Your task to perform on an android device: open app "Fetch Rewards" (install if not already installed) Image 0: 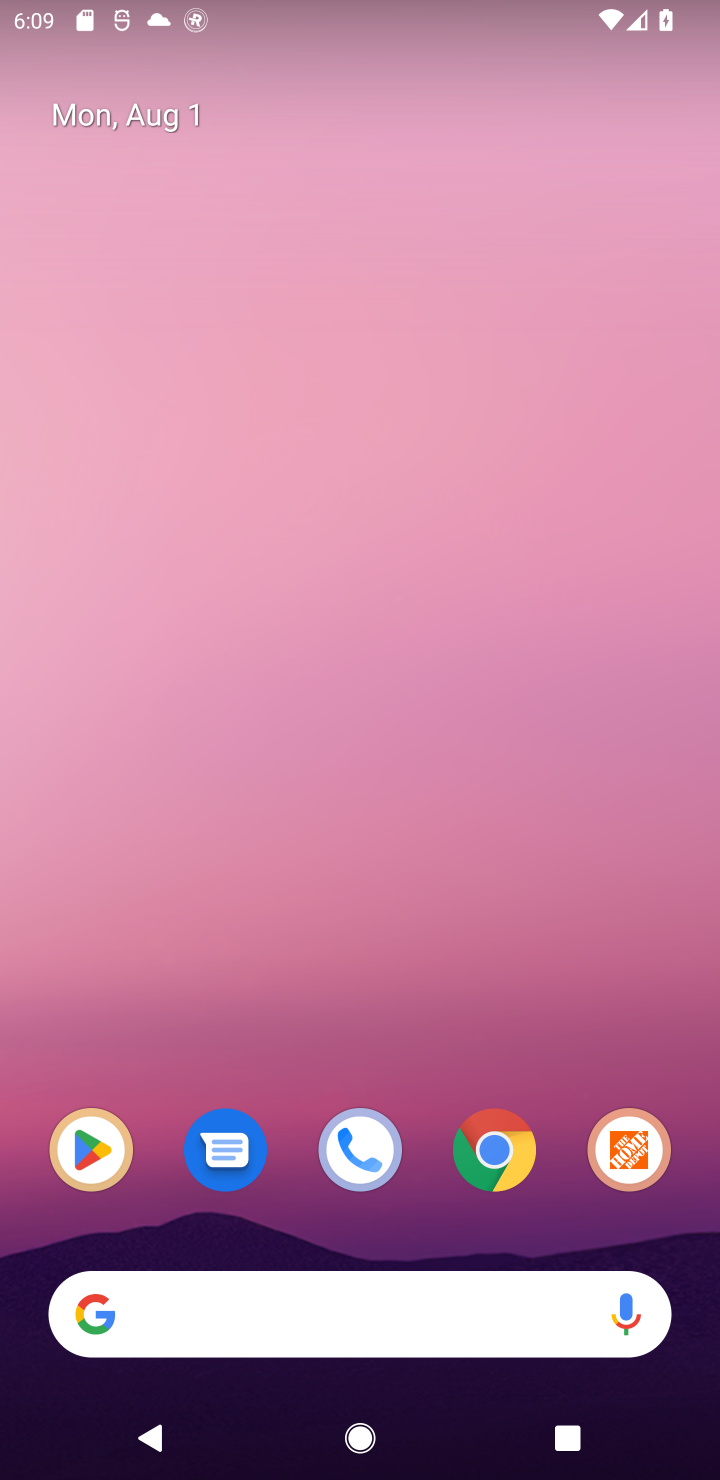
Step 0: click (81, 1152)
Your task to perform on an android device: open app "Fetch Rewards" (install if not already installed) Image 1: 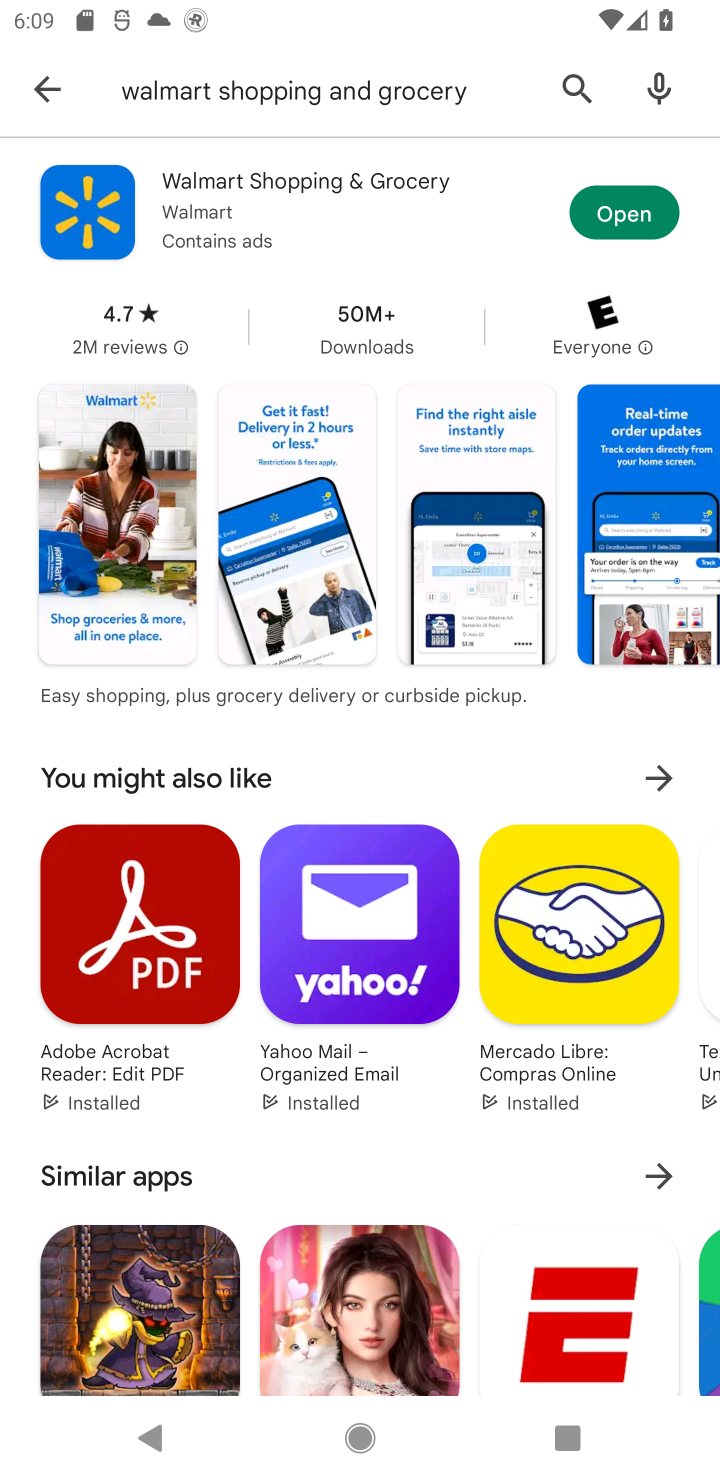
Step 1: click (579, 94)
Your task to perform on an android device: open app "Fetch Rewards" (install if not already installed) Image 2: 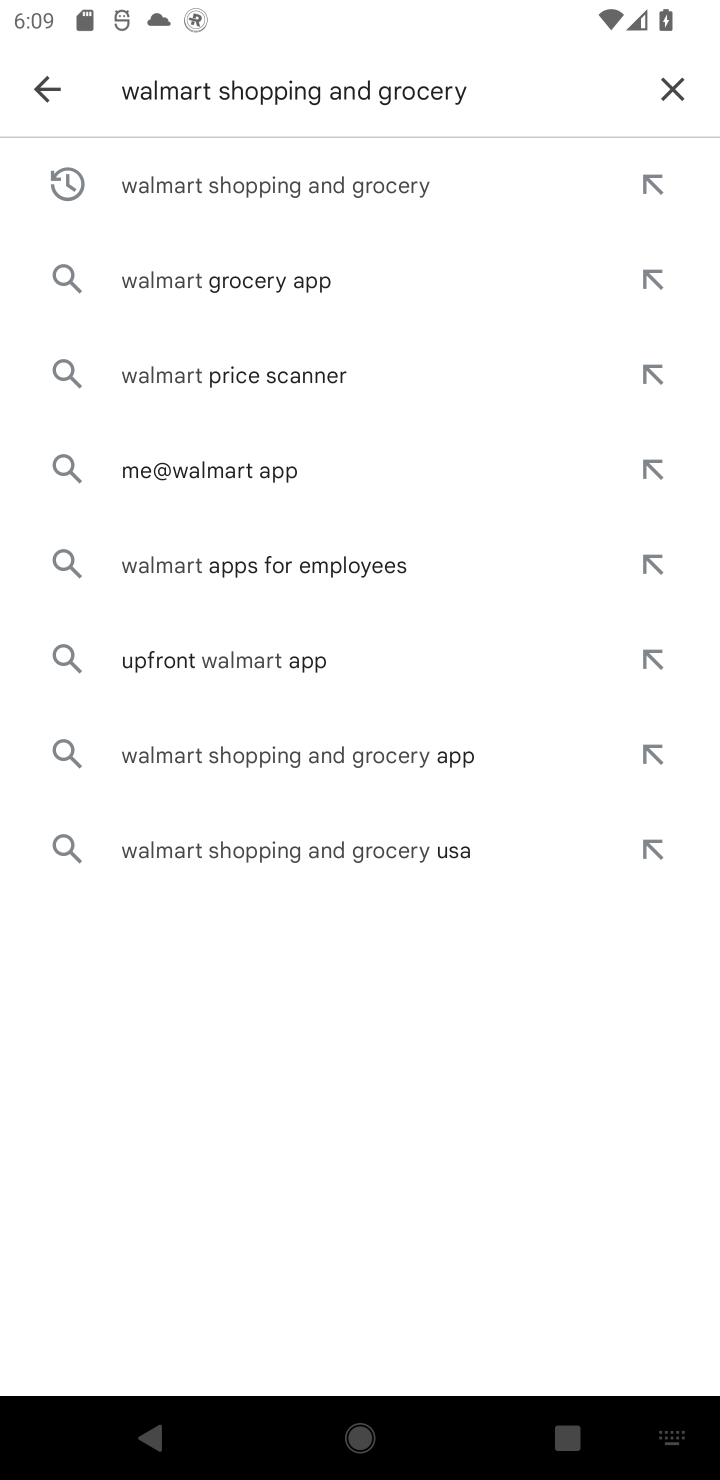
Step 2: click (674, 94)
Your task to perform on an android device: open app "Fetch Rewards" (install if not already installed) Image 3: 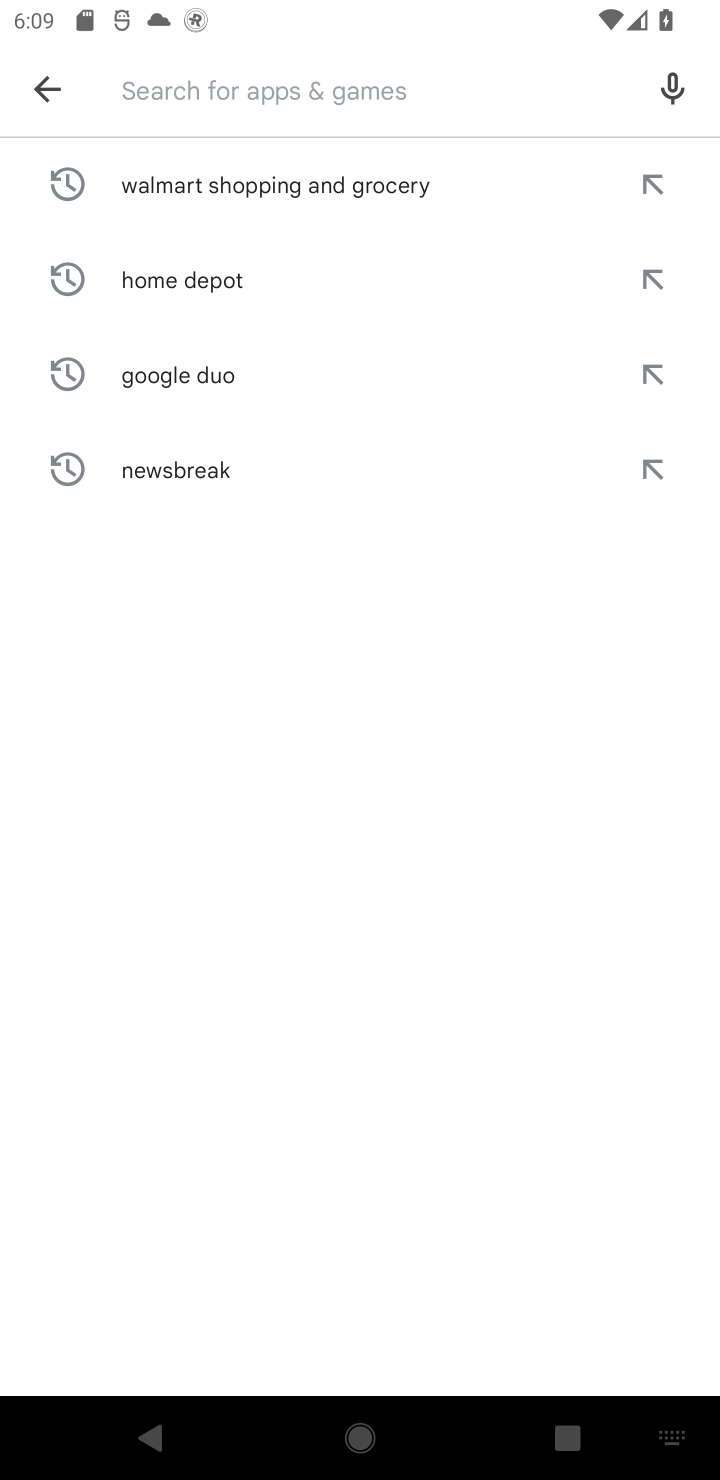
Step 3: type "fetch"
Your task to perform on an android device: open app "Fetch Rewards" (install if not already installed) Image 4: 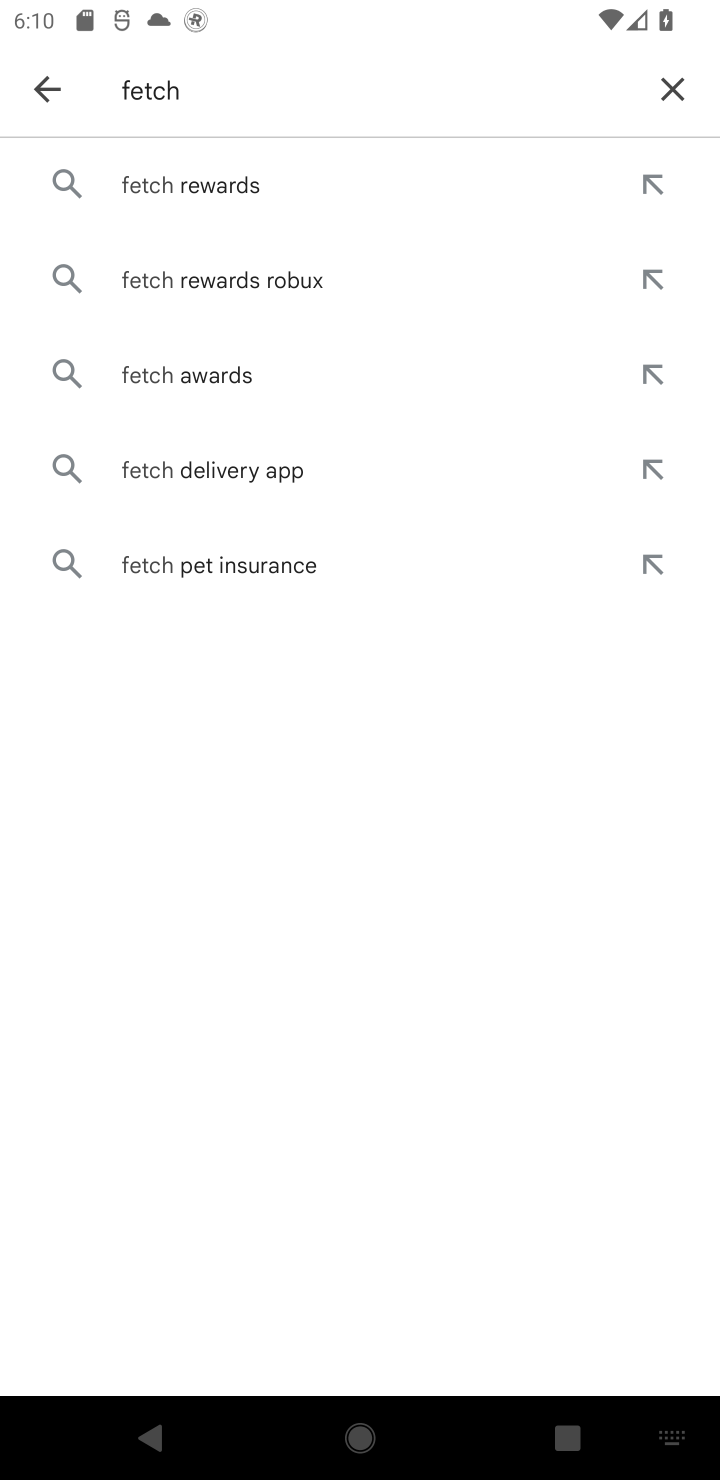
Step 4: click (419, 202)
Your task to perform on an android device: open app "Fetch Rewards" (install if not already installed) Image 5: 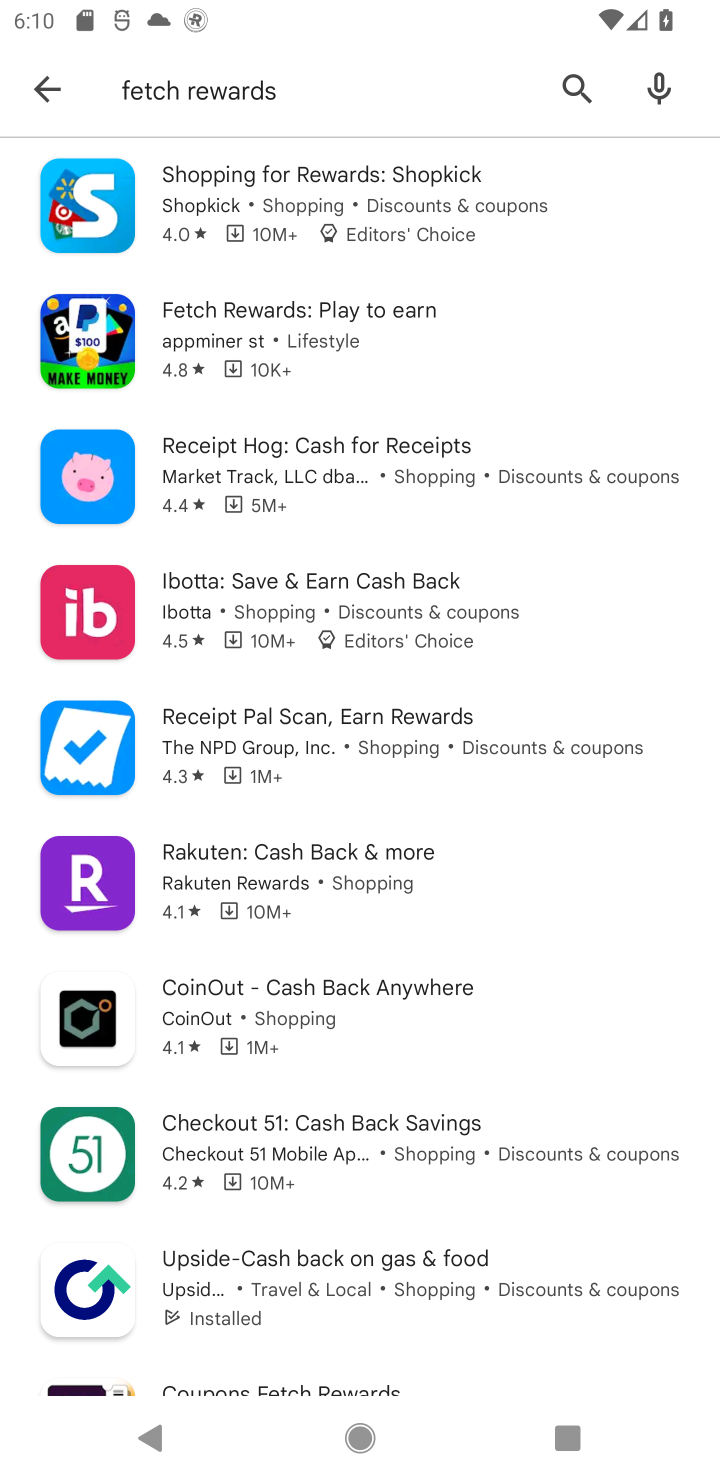
Step 5: task complete